Your task to perform on an android device: Open the phone app and click the voicemail tab. Image 0: 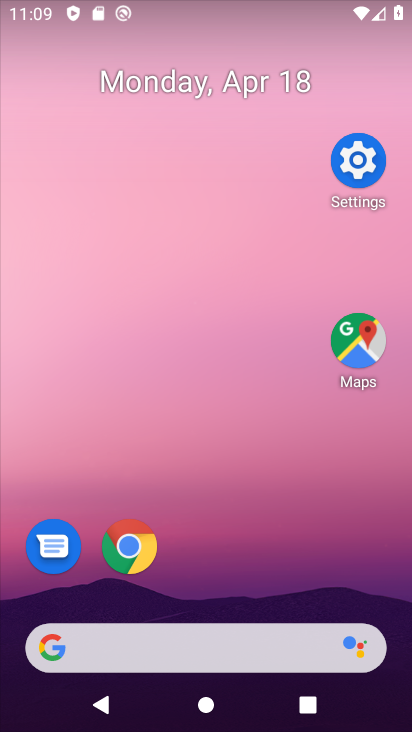
Step 0: drag from (255, 382) to (185, 65)
Your task to perform on an android device: Open the phone app and click the voicemail tab. Image 1: 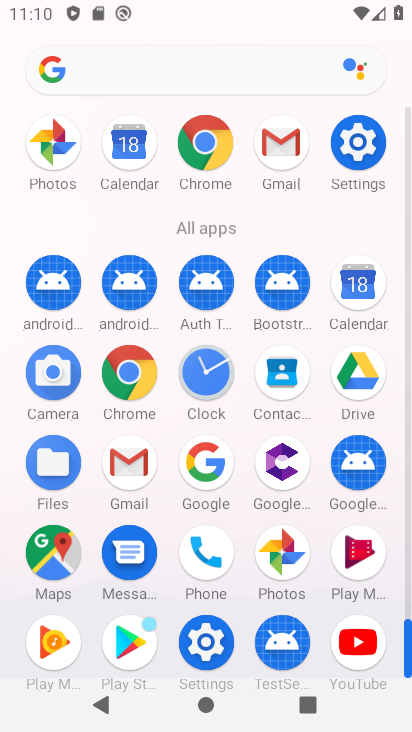
Step 1: click (204, 550)
Your task to perform on an android device: Open the phone app and click the voicemail tab. Image 2: 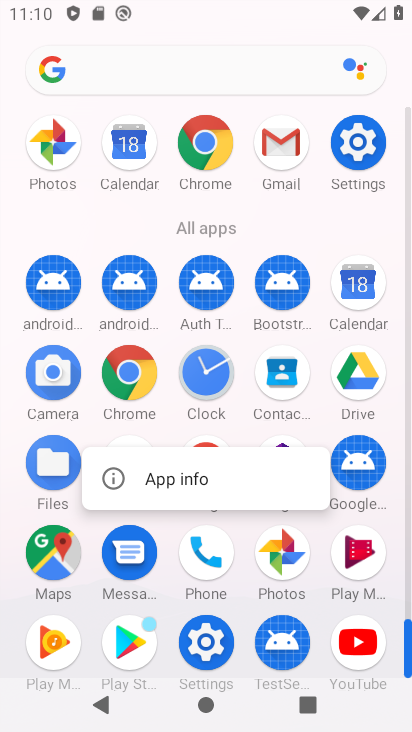
Step 2: click (204, 550)
Your task to perform on an android device: Open the phone app and click the voicemail tab. Image 3: 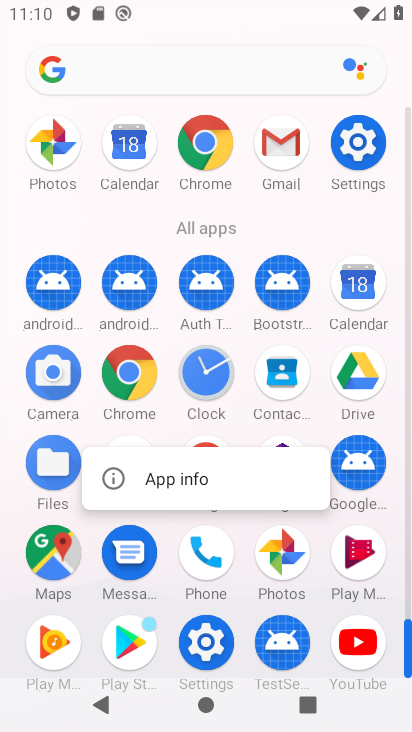
Step 3: click (204, 550)
Your task to perform on an android device: Open the phone app and click the voicemail tab. Image 4: 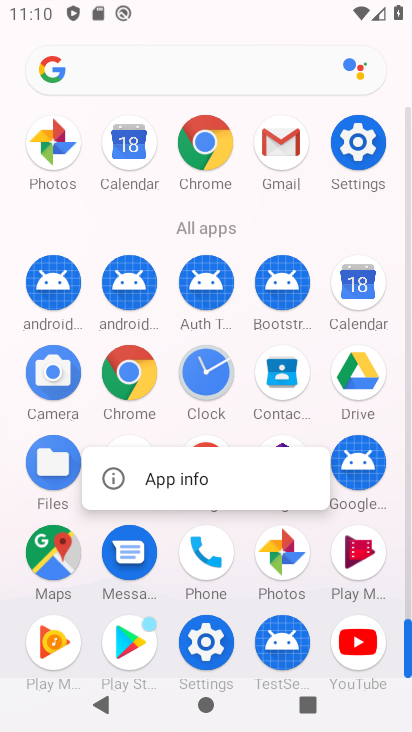
Step 4: click (206, 549)
Your task to perform on an android device: Open the phone app and click the voicemail tab. Image 5: 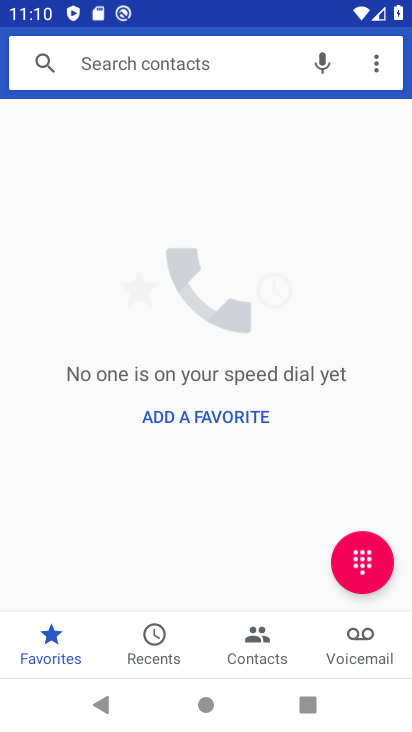
Step 5: click (341, 649)
Your task to perform on an android device: Open the phone app and click the voicemail tab. Image 6: 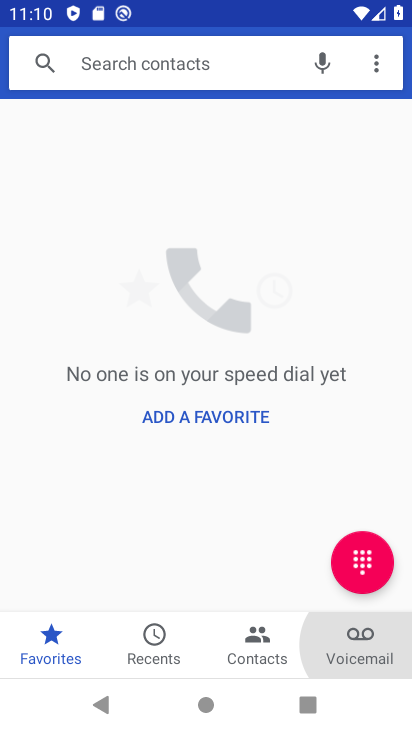
Step 6: click (341, 649)
Your task to perform on an android device: Open the phone app and click the voicemail tab. Image 7: 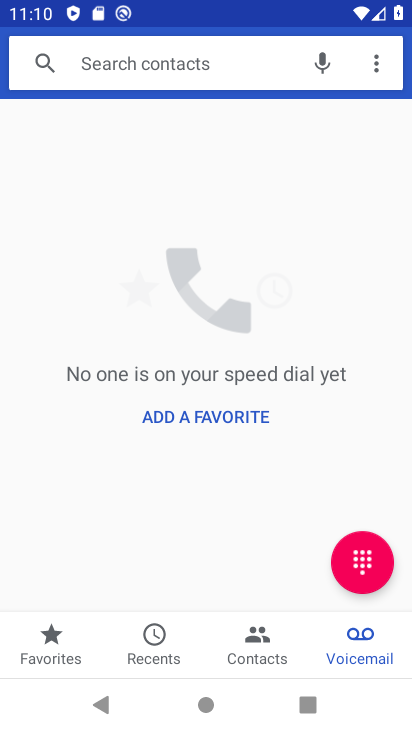
Step 7: click (341, 649)
Your task to perform on an android device: Open the phone app and click the voicemail tab. Image 8: 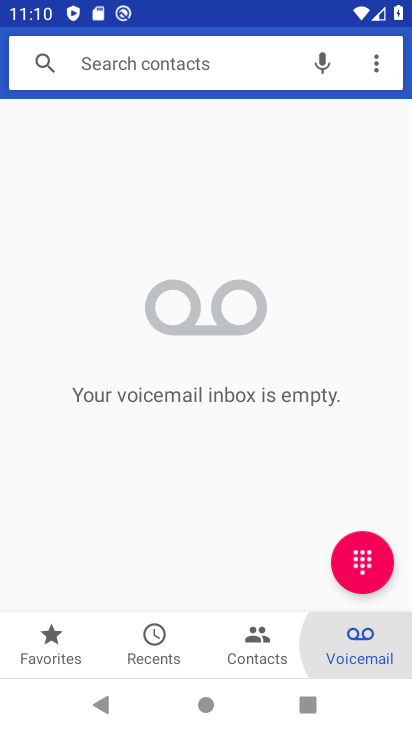
Step 8: click (341, 649)
Your task to perform on an android device: Open the phone app and click the voicemail tab. Image 9: 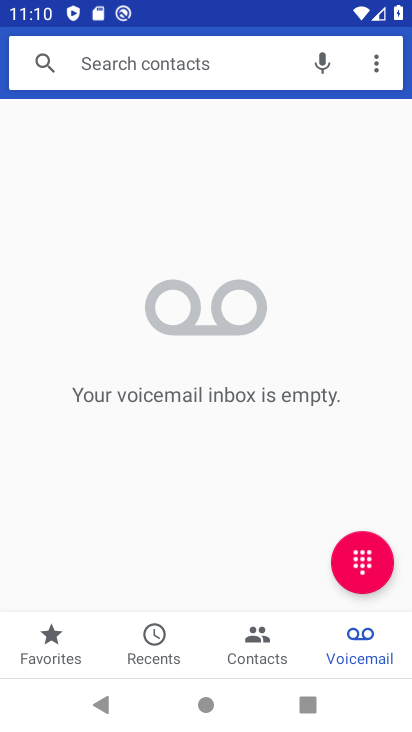
Step 9: task complete